Your task to perform on an android device: visit the assistant section in the google photos Image 0: 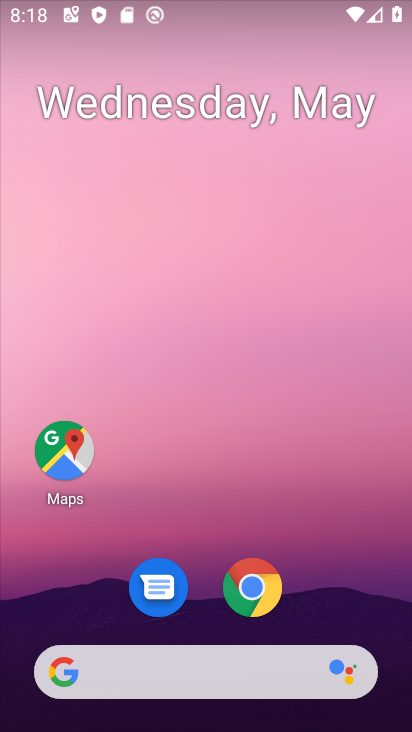
Step 0: drag from (383, 621) to (354, 92)
Your task to perform on an android device: visit the assistant section in the google photos Image 1: 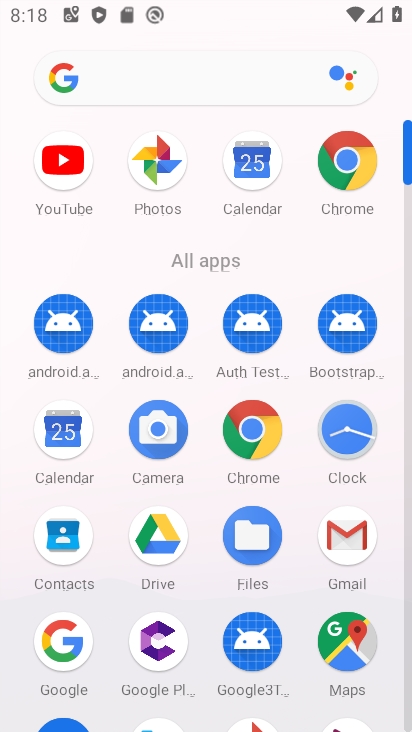
Step 1: click (406, 680)
Your task to perform on an android device: visit the assistant section in the google photos Image 2: 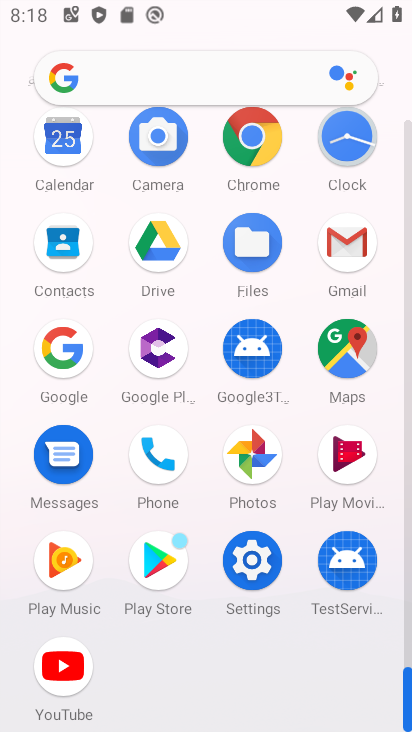
Step 2: click (250, 458)
Your task to perform on an android device: visit the assistant section in the google photos Image 3: 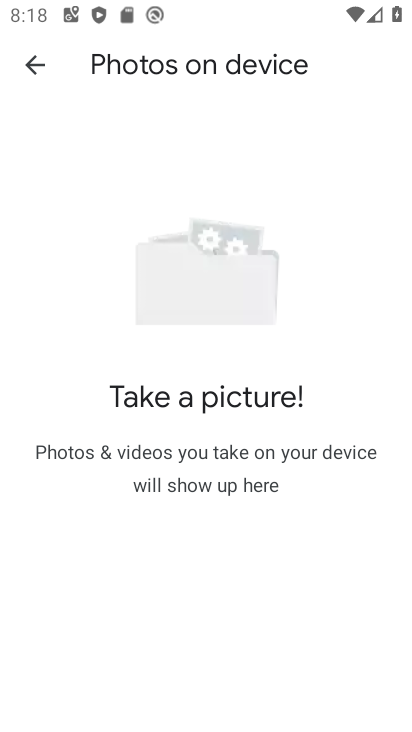
Step 3: press back button
Your task to perform on an android device: visit the assistant section in the google photos Image 4: 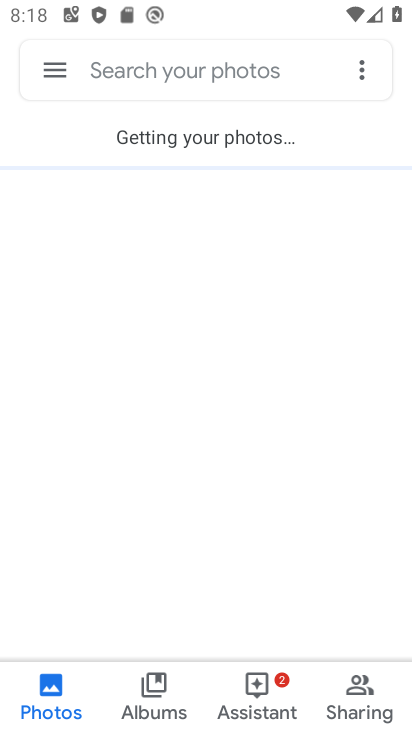
Step 4: click (260, 689)
Your task to perform on an android device: visit the assistant section in the google photos Image 5: 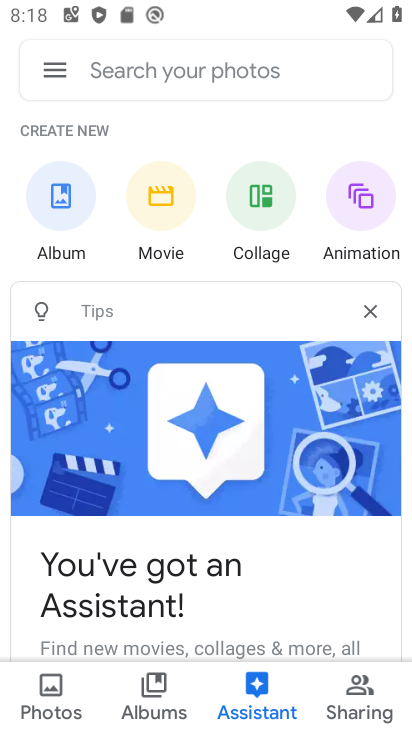
Step 5: click (367, 308)
Your task to perform on an android device: visit the assistant section in the google photos Image 6: 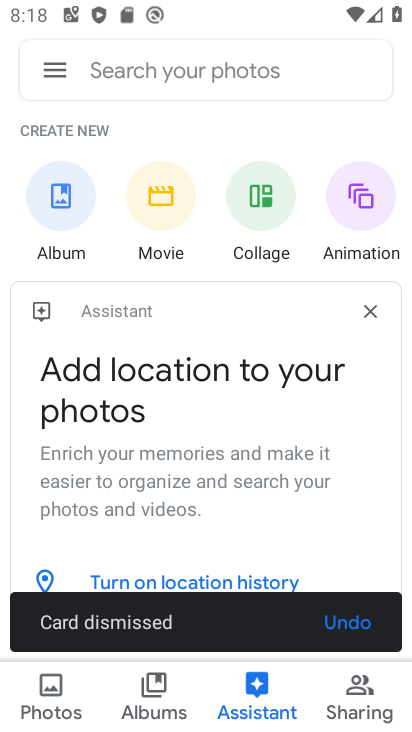
Step 6: click (369, 307)
Your task to perform on an android device: visit the assistant section in the google photos Image 7: 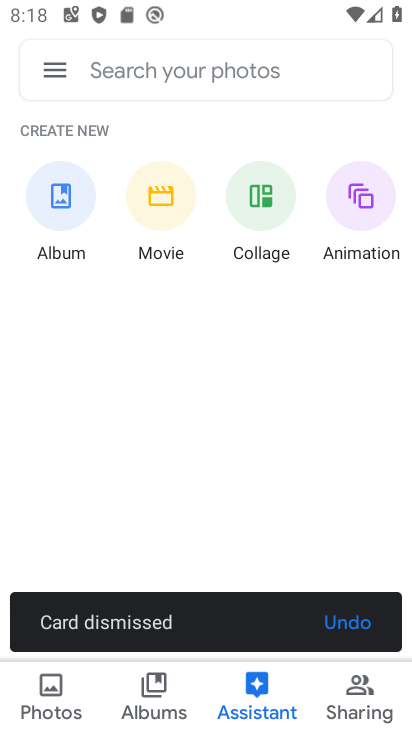
Step 7: task complete